Your task to perform on an android device: change the clock display to digital Image 0: 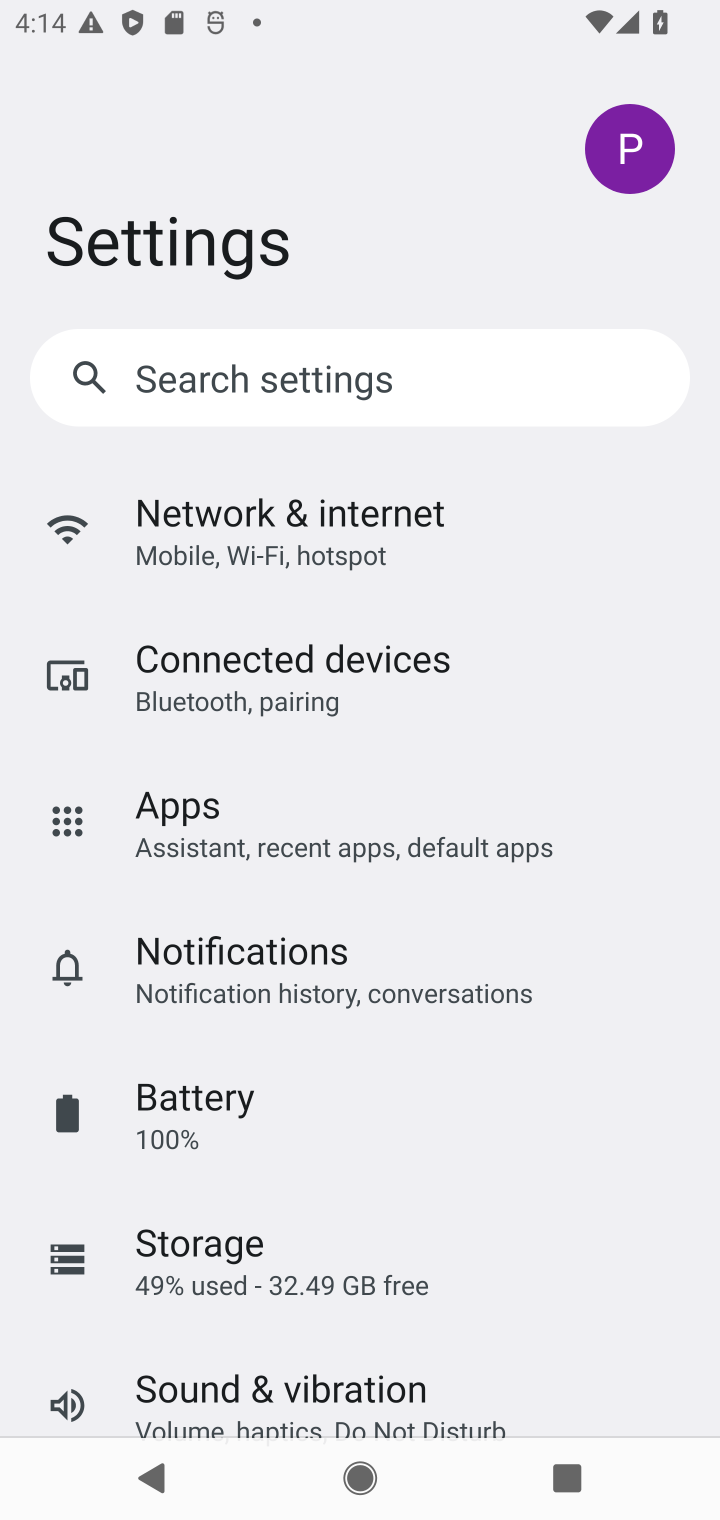
Step 0: press back button
Your task to perform on an android device: change the clock display to digital Image 1: 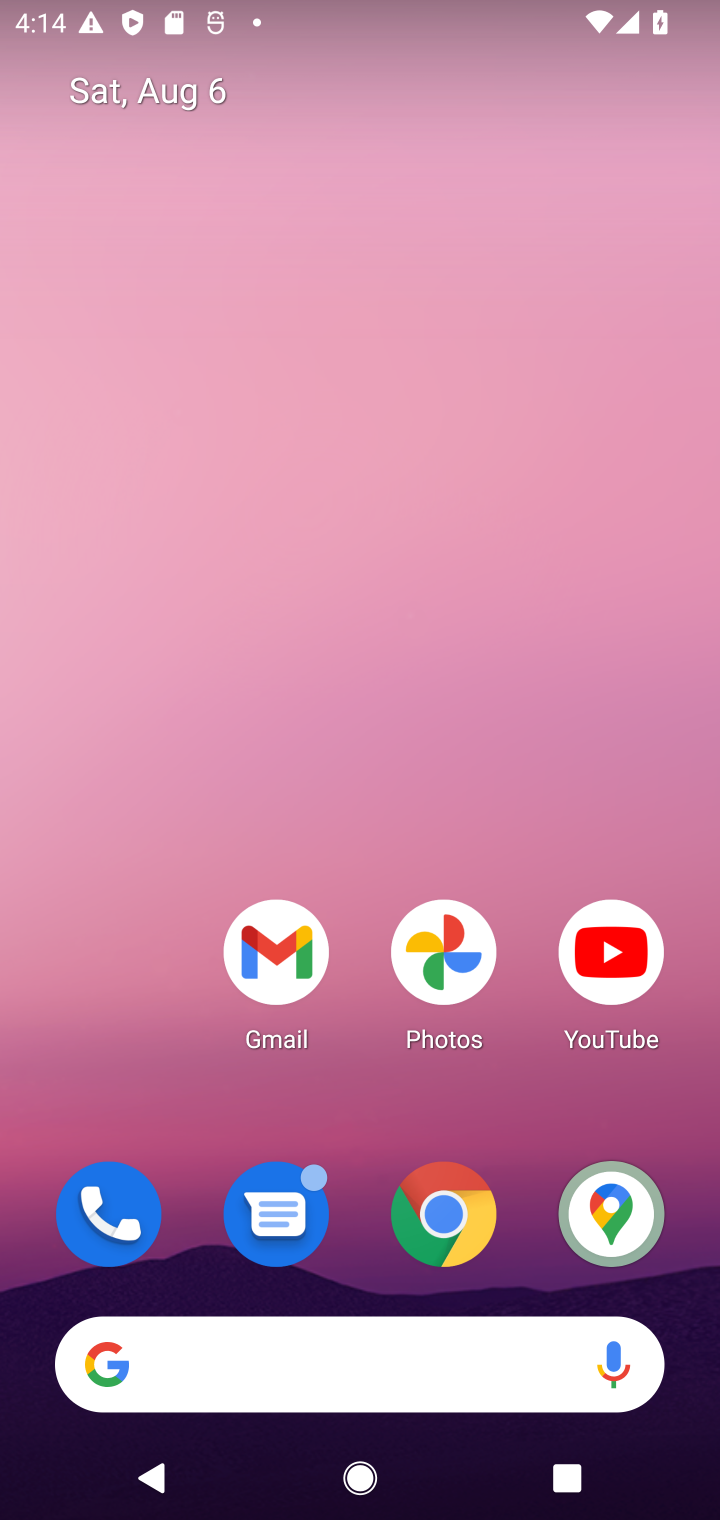
Step 1: drag from (332, 1118) to (343, 306)
Your task to perform on an android device: change the clock display to digital Image 2: 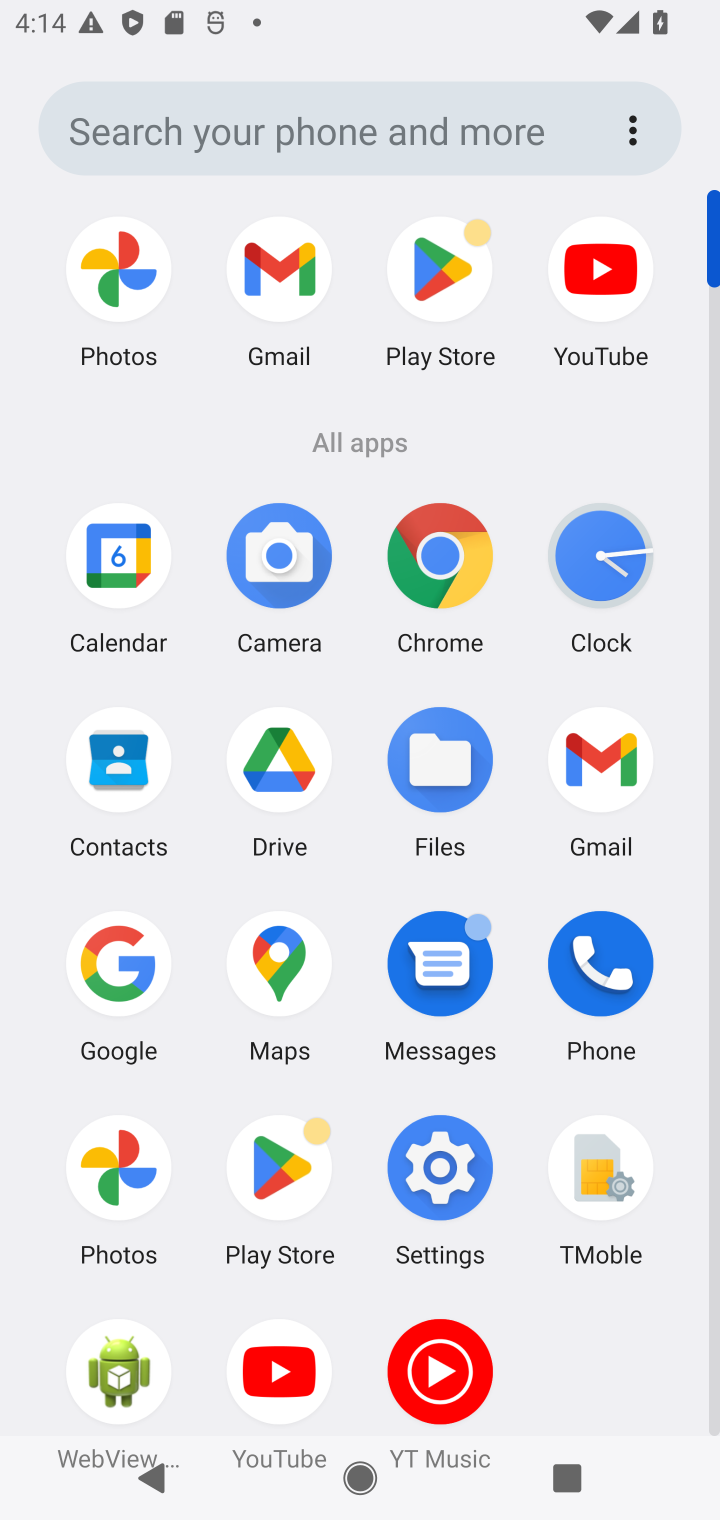
Step 2: click (594, 561)
Your task to perform on an android device: change the clock display to digital Image 3: 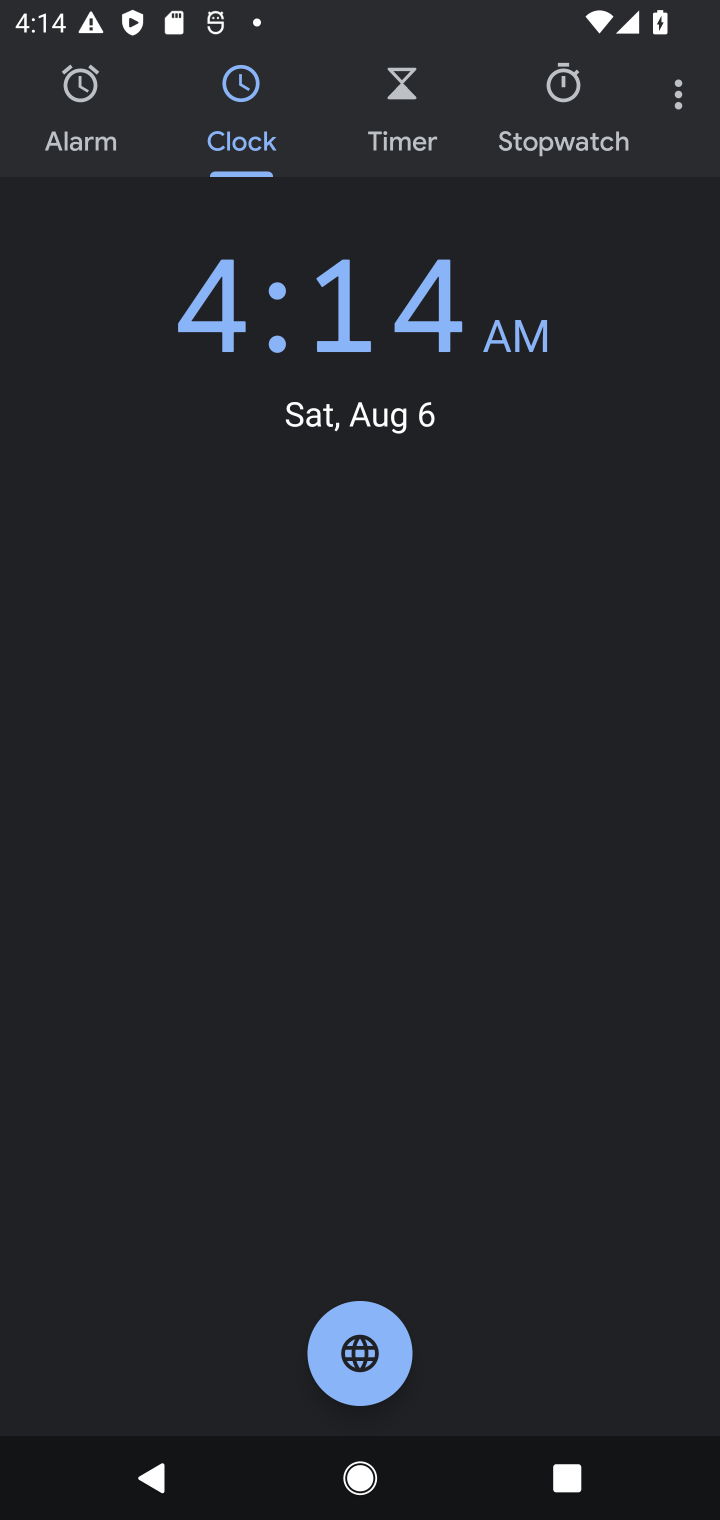
Step 3: click (689, 101)
Your task to perform on an android device: change the clock display to digital Image 4: 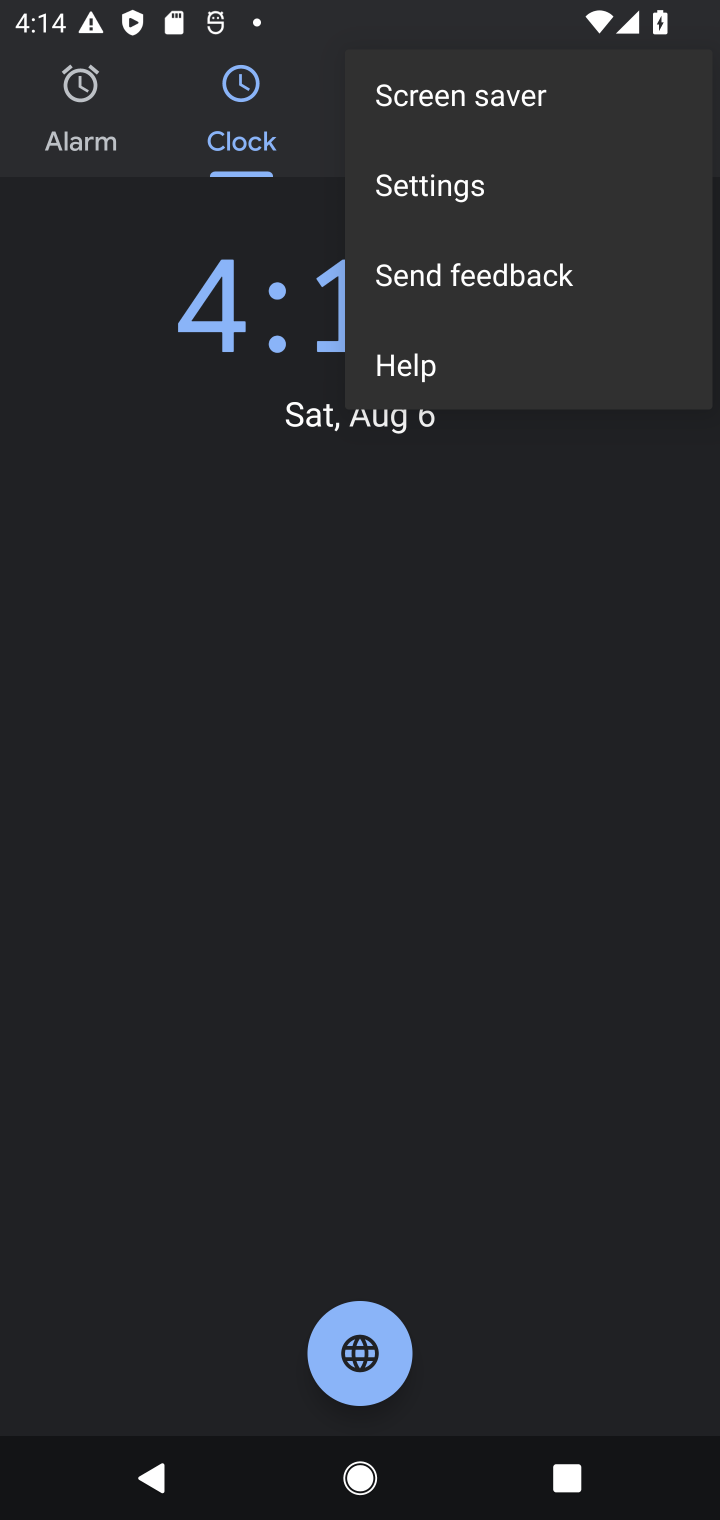
Step 4: click (500, 181)
Your task to perform on an android device: change the clock display to digital Image 5: 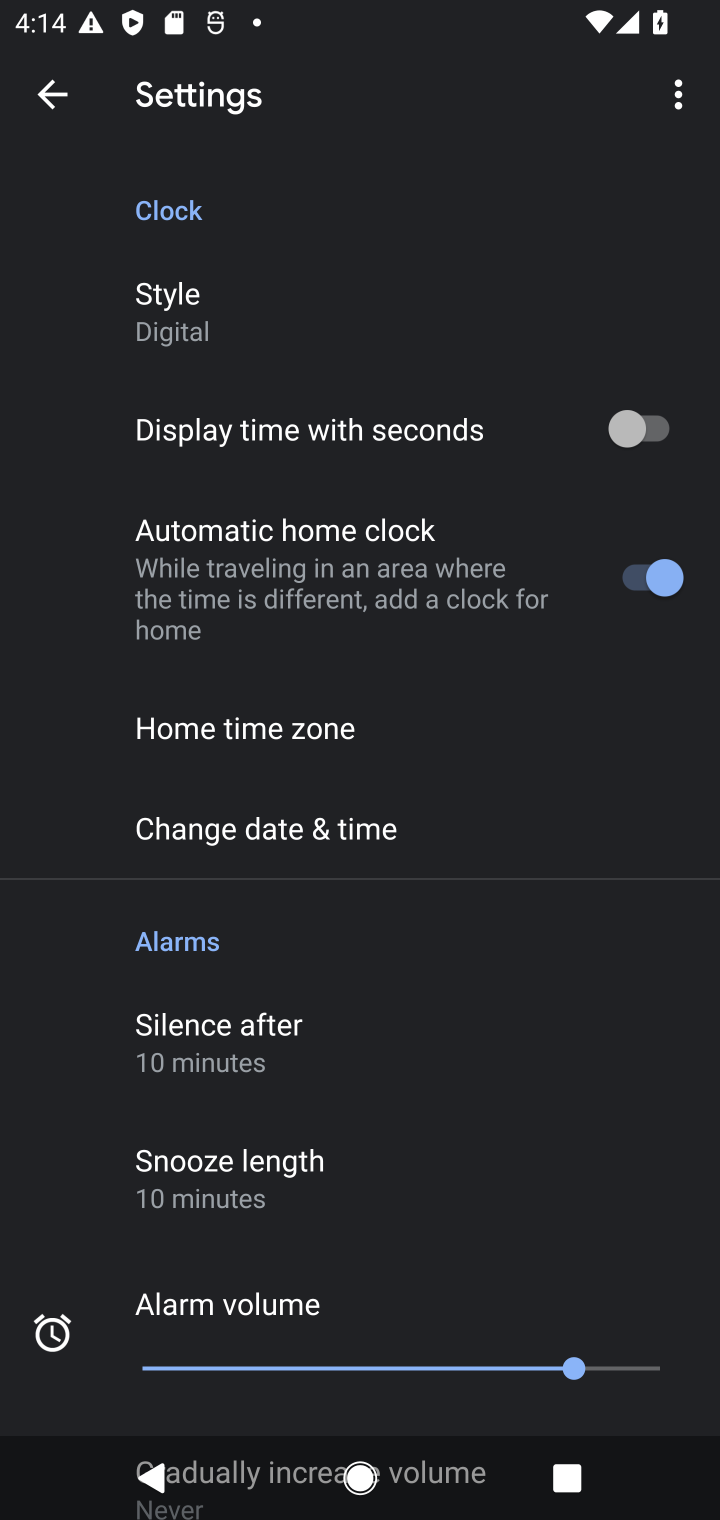
Step 5: click (172, 314)
Your task to perform on an android device: change the clock display to digital Image 6: 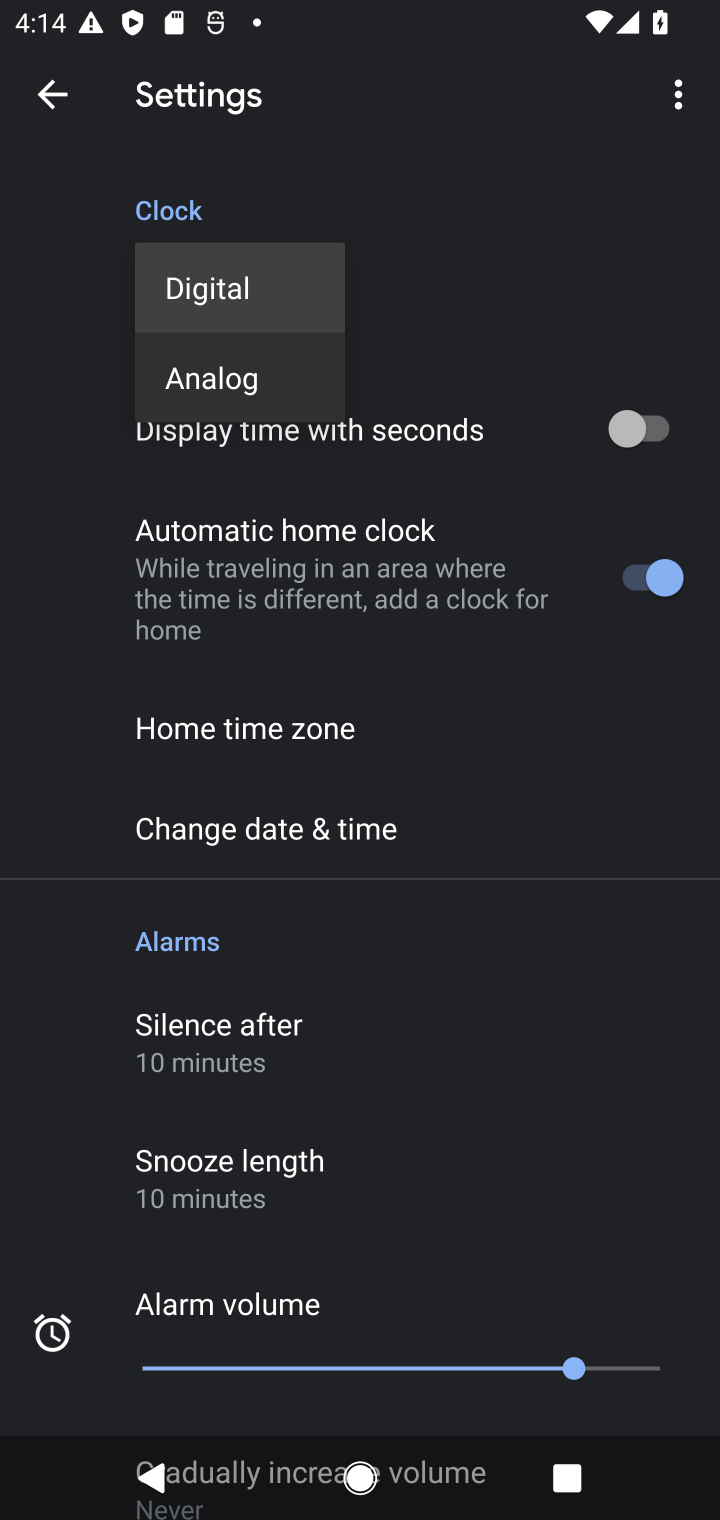
Step 6: click (232, 290)
Your task to perform on an android device: change the clock display to digital Image 7: 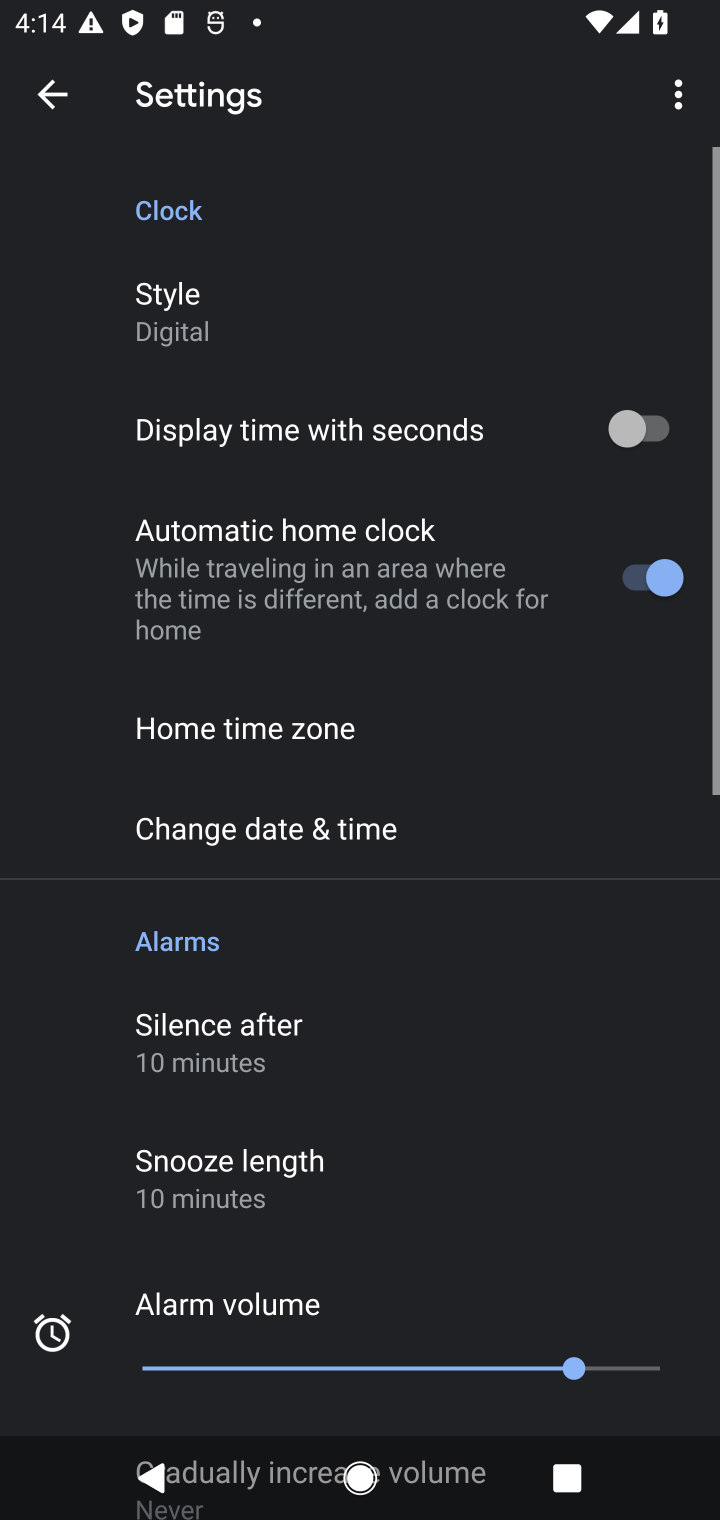
Step 7: task complete